Your task to perform on an android device: Open Reddit.com Image 0: 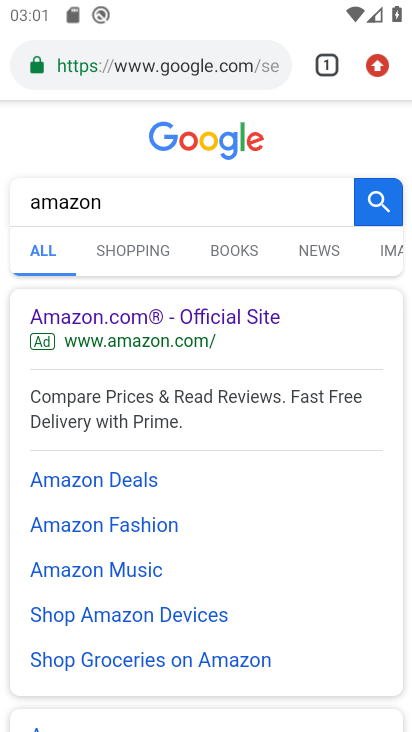
Step 0: click (209, 207)
Your task to perform on an android device: Open Reddit.com Image 1: 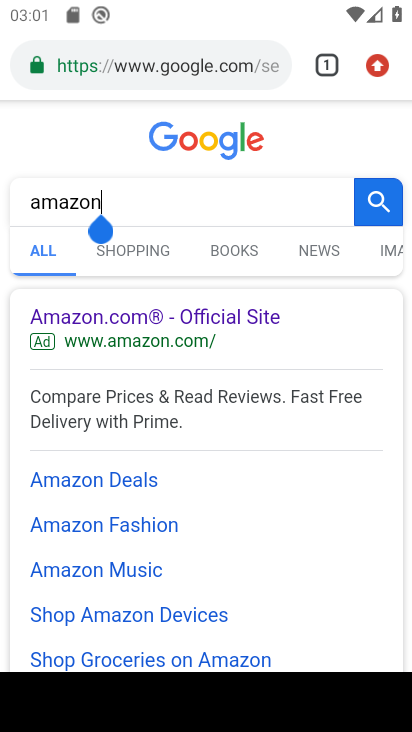
Step 1: click (207, 52)
Your task to perform on an android device: Open Reddit.com Image 2: 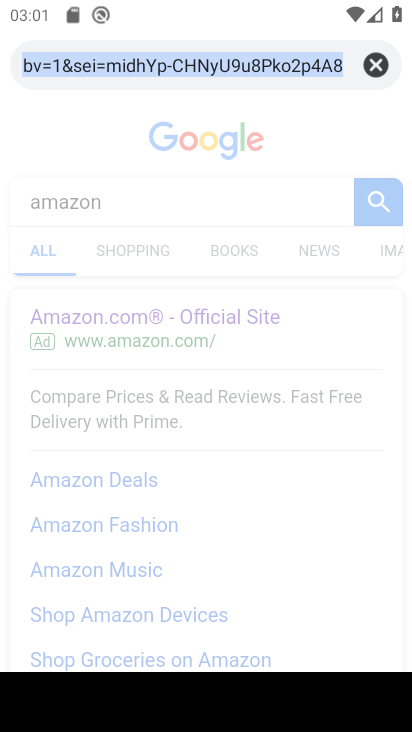
Step 2: click (373, 64)
Your task to perform on an android device: Open Reddit.com Image 3: 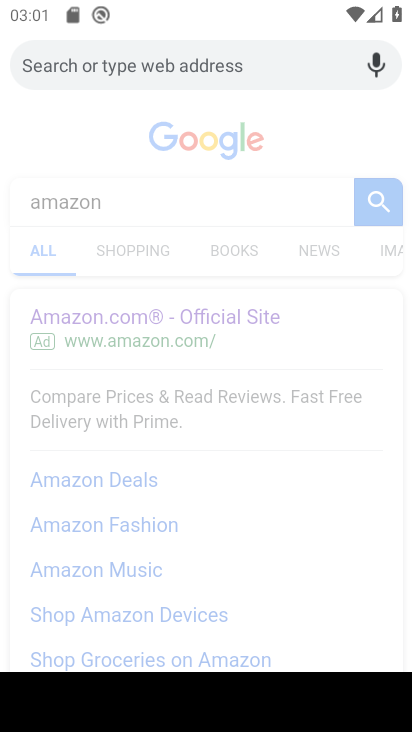
Step 3: click (235, 63)
Your task to perform on an android device: Open Reddit.com Image 4: 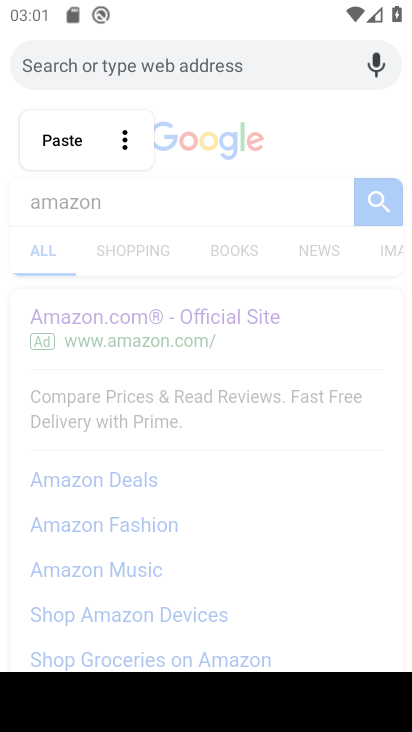
Step 4: type "reddit.com"
Your task to perform on an android device: Open Reddit.com Image 5: 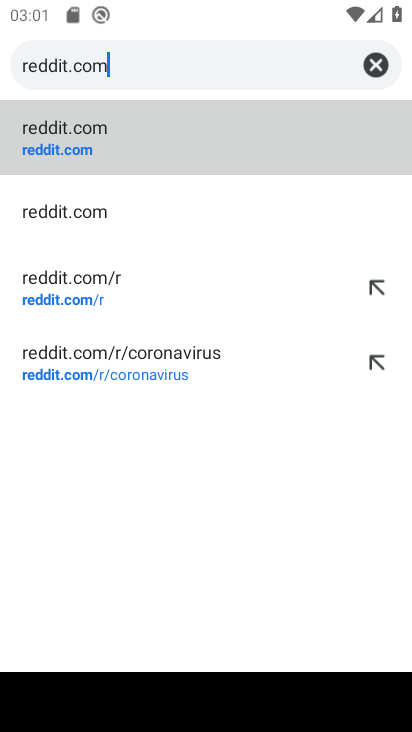
Step 5: click (164, 212)
Your task to perform on an android device: Open Reddit.com Image 6: 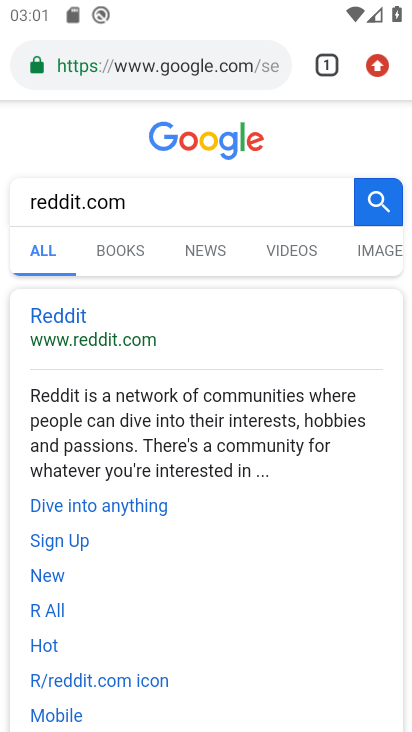
Step 6: task complete